Your task to perform on an android device: Open the calendar app, open the side menu, and click the "Day" option Image 0: 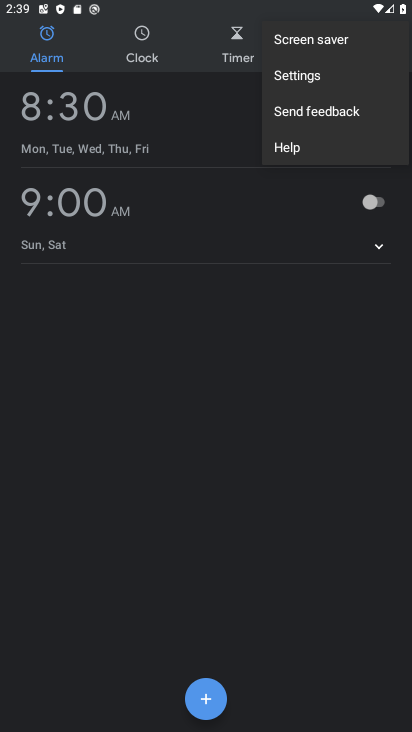
Step 0: press home button
Your task to perform on an android device: Open the calendar app, open the side menu, and click the "Day" option Image 1: 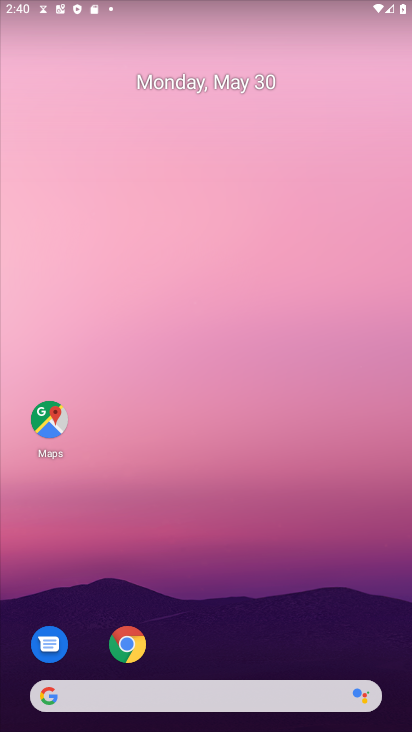
Step 1: drag from (317, 623) to (309, 142)
Your task to perform on an android device: Open the calendar app, open the side menu, and click the "Day" option Image 2: 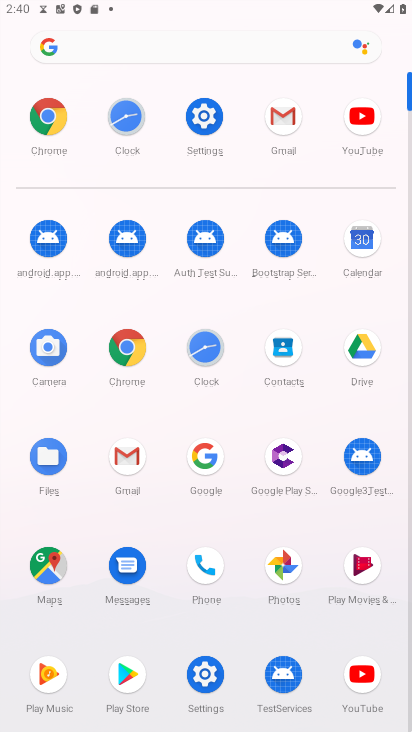
Step 2: click (365, 242)
Your task to perform on an android device: Open the calendar app, open the side menu, and click the "Day" option Image 3: 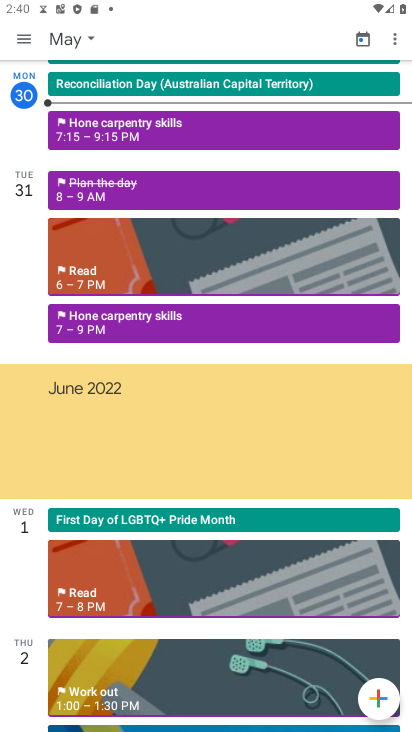
Step 3: click (24, 40)
Your task to perform on an android device: Open the calendar app, open the side menu, and click the "Day" option Image 4: 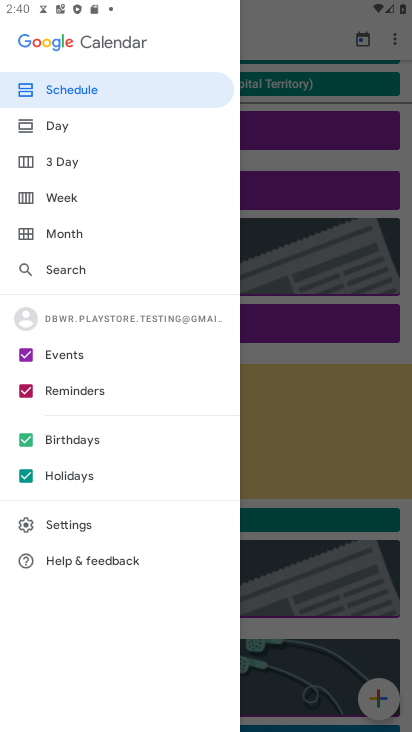
Step 4: click (56, 131)
Your task to perform on an android device: Open the calendar app, open the side menu, and click the "Day" option Image 5: 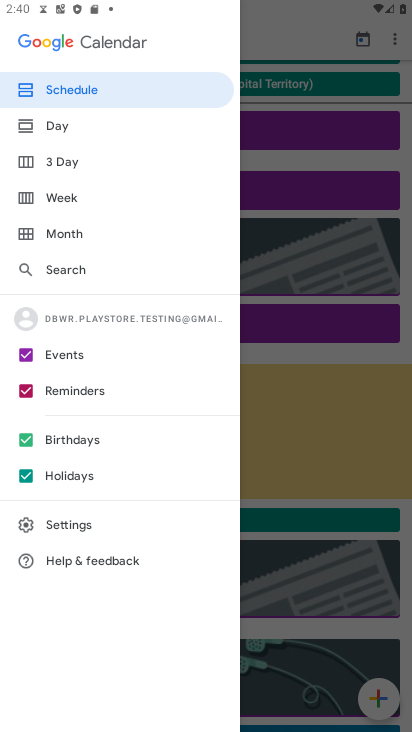
Step 5: click (61, 130)
Your task to perform on an android device: Open the calendar app, open the side menu, and click the "Day" option Image 6: 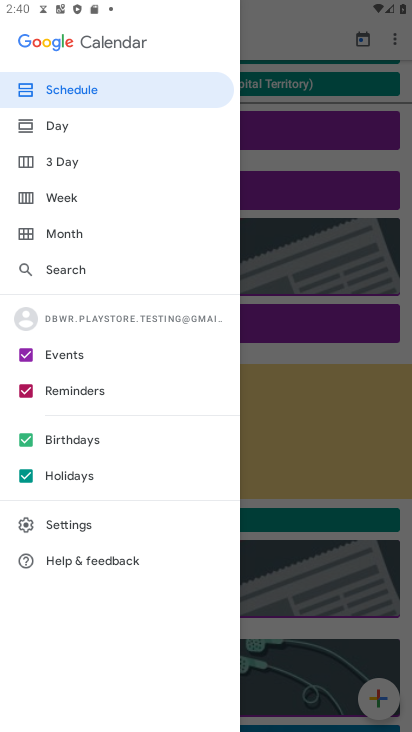
Step 6: click (148, 129)
Your task to perform on an android device: Open the calendar app, open the side menu, and click the "Day" option Image 7: 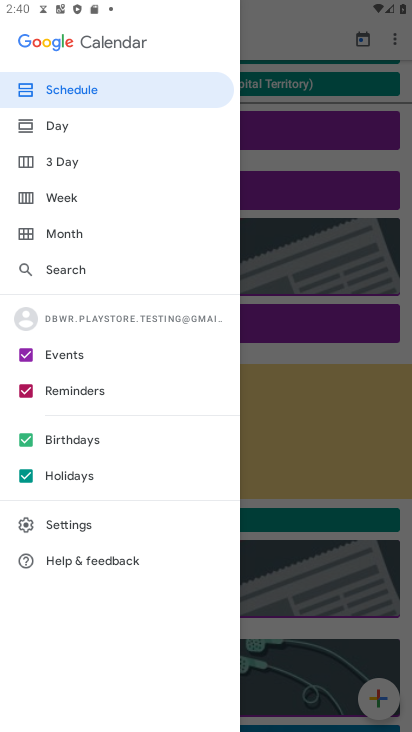
Step 7: click (147, 128)
Your task to perform on an android device: Open the calendar app, open the side menu, and click the "Day" option Image 8: 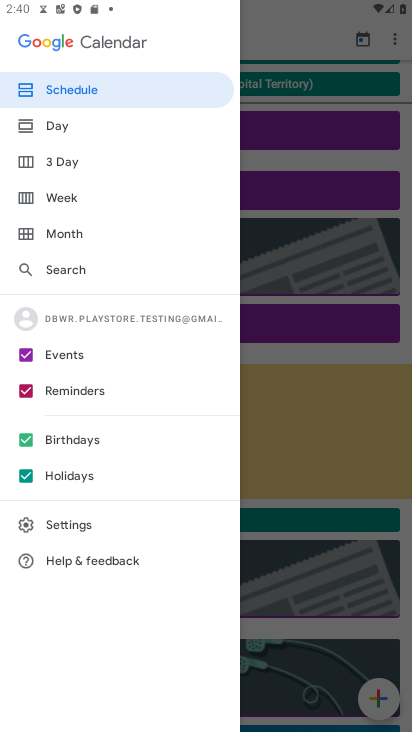
Step 8: click (61, 124)
Your task to perform on an android device: Open the calendar app, open the side menu, and click the "Day" option Image 9: 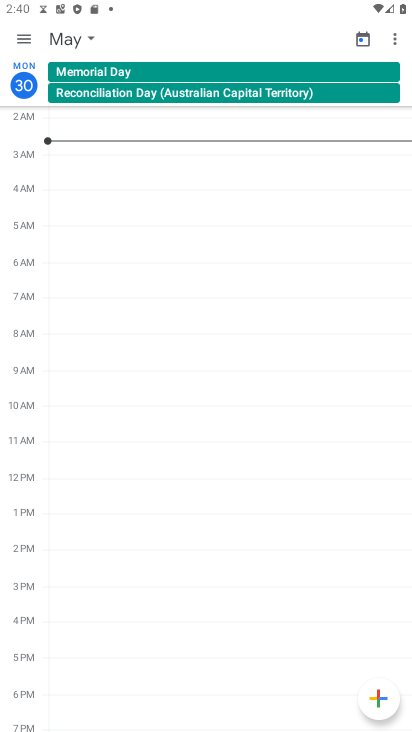
Step 9: task complete